Your task to perform on an android device: check the backup settings in the google photos Image 0: 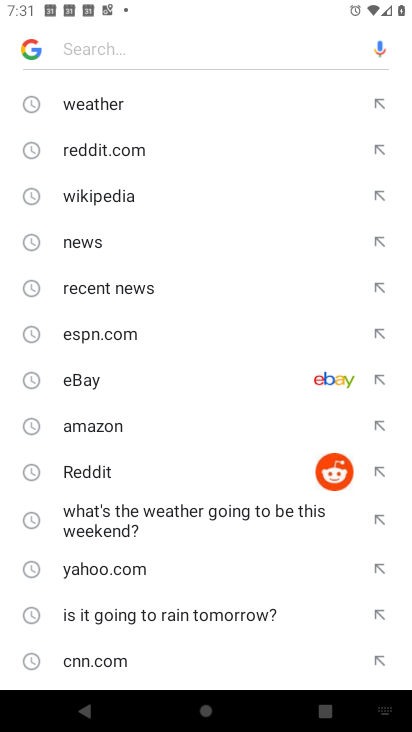
Step 0: press home button
Your task to perform on an android device: check the backup settings in the google photos Image 1: 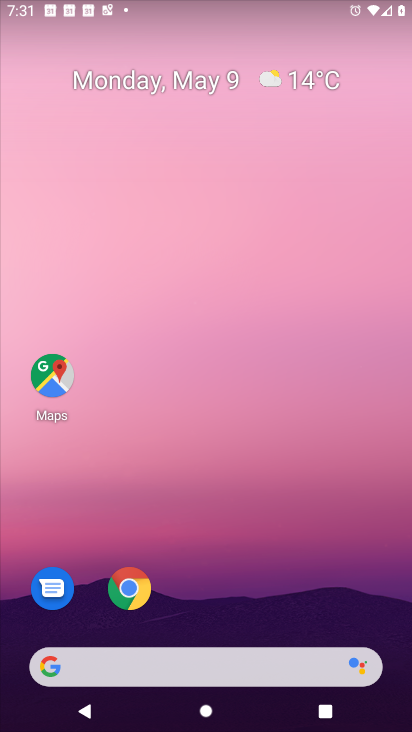
Step 1: drag from (327, 600) to (259, 8)
Your task to perform on an android device: check the backup settings in the google photos Image 2: 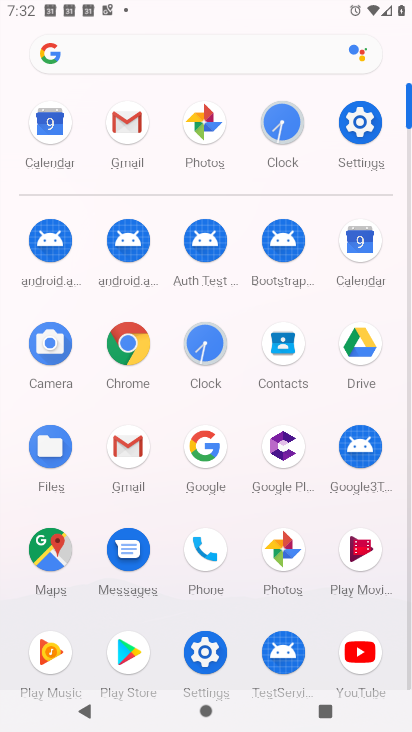
Step 2: click (286, 550)
Your task to perform on an android device: check the backup settings in the google photos Image 3: 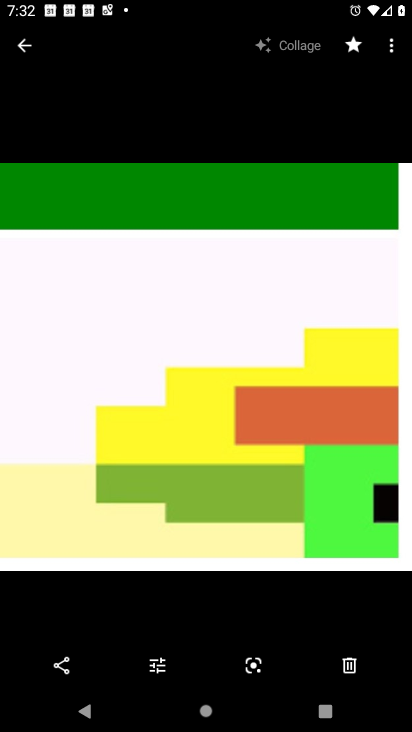
Step 3: press back button
Your task to perform on an android device: check the backup settings in the google photos Image 4: 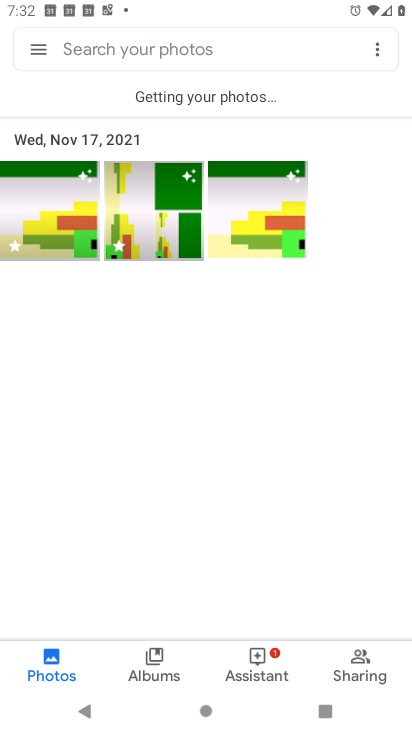
Step 4: click (28, 51)
Your task to perform on an android device: check the backup settings in the google photos Image 5: 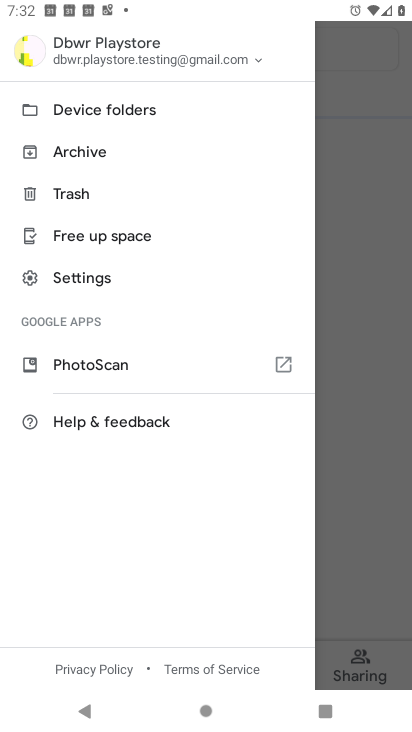
Step 5: click (122, 265)
Your task to perform on an android device: check the backup settings in the google photos Image 6: 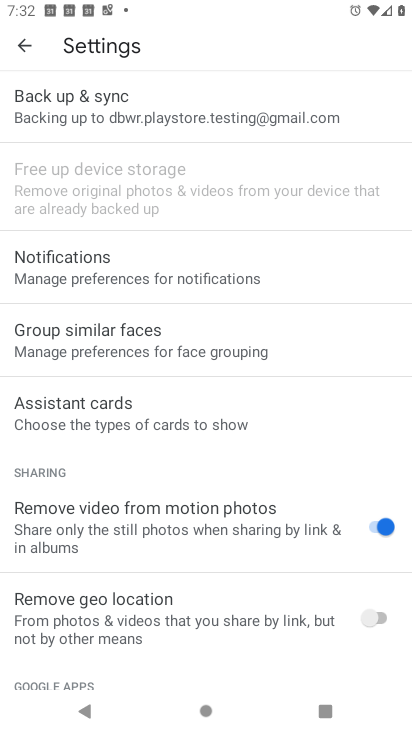
Step 6: click (116, 100)
Your task to perform on an android device: check the backup settings in the google photos Image 7: 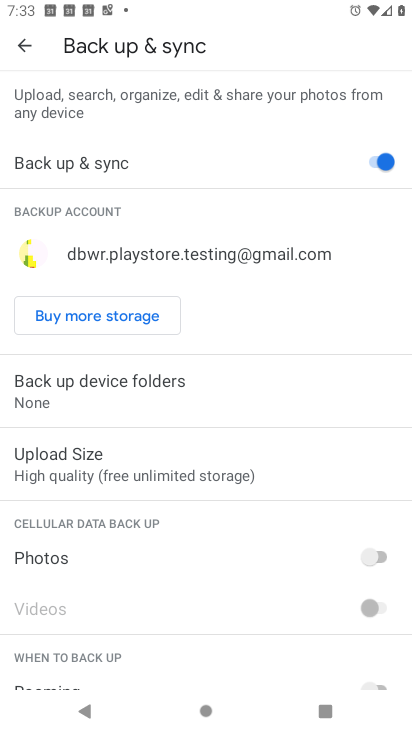
Step 7: click (134, 161)
Your task to perform on an android device: check the backup settings in the google photos Image 8: 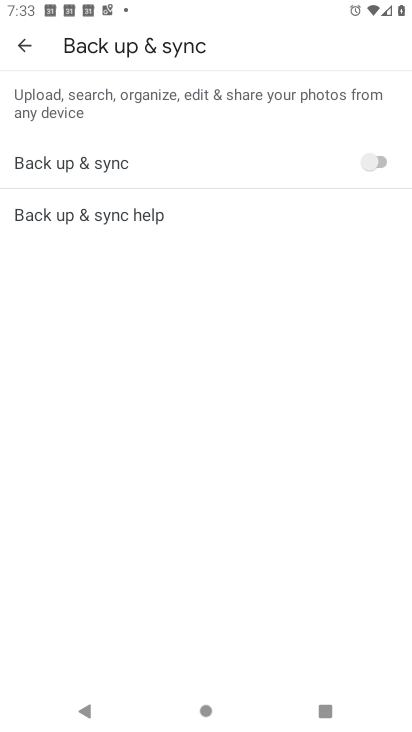
Step 8: press back button
Your task to perform on an android device: check the backup settings in the google photos Image 9: 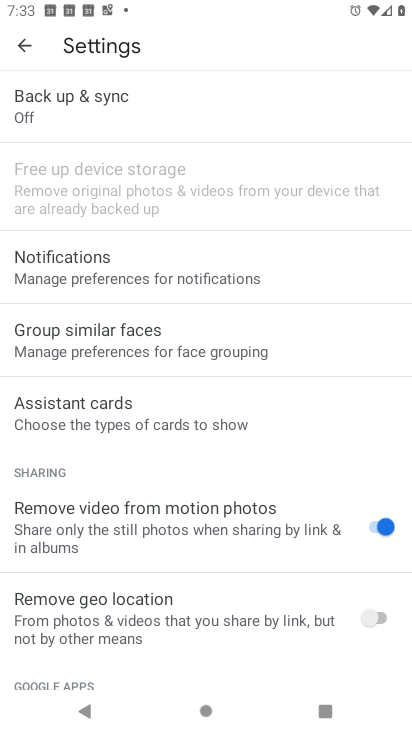
Step 9: click (177, 129)
Your task to perform on an android device: check the backup settings in the google photos Image 10: 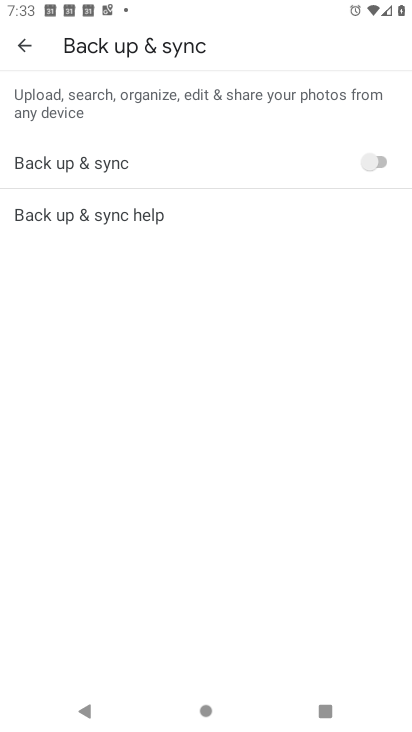
Step 10: task complete